Your task to perform on an android device: Go to network settings Image 0: 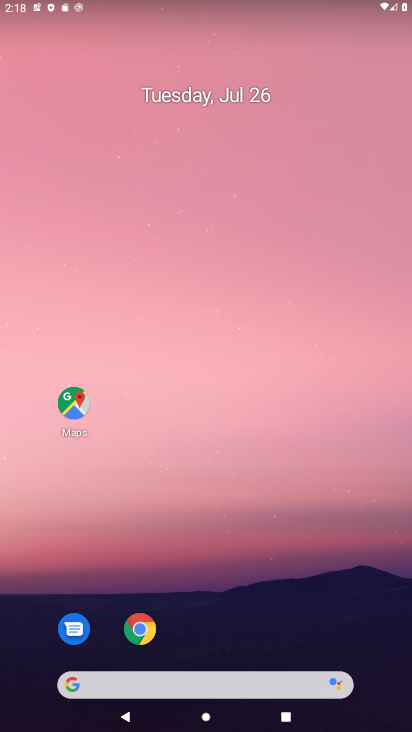
Step 0: drag from (227, 626) to (226, 215)
Your task to perform on an android device: Go to network settings Image 1: 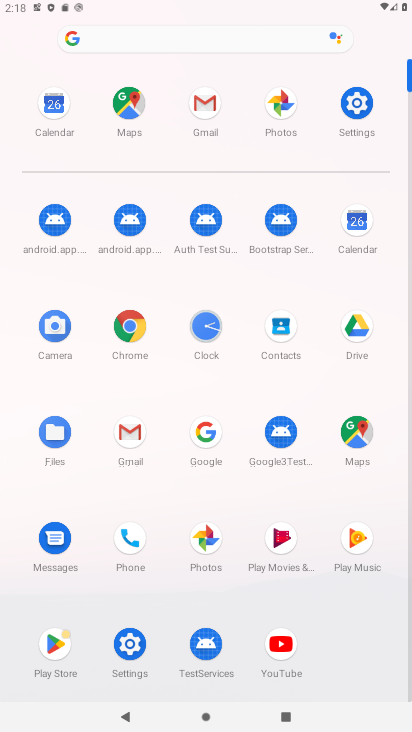
Step 1: click (339, 107)
Your task to perform on an android device: Go to network settings Image 2: 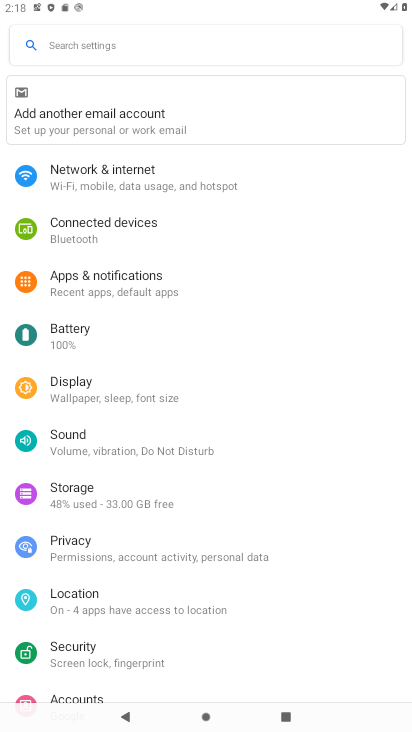
Step 2: click (184, 178)
Your task to perform on an android device: Go to network settings Image 3: 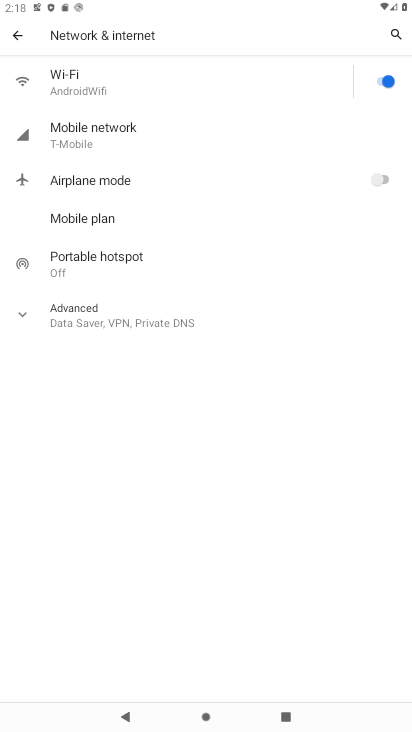
Step 3: task complete